Your task to perform on an android device: toggle show notifications on the lock screen Image 0: 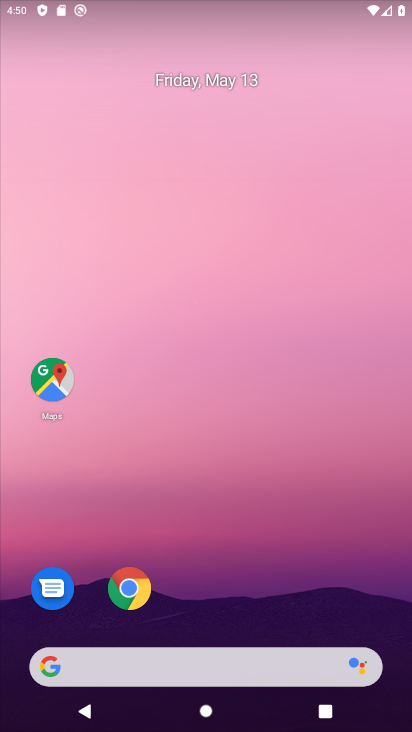
Step 0: drag from (222, 636) to (307, 243)
Your task to perform on an android device: toggle show notifications on the lock screen Image 1: 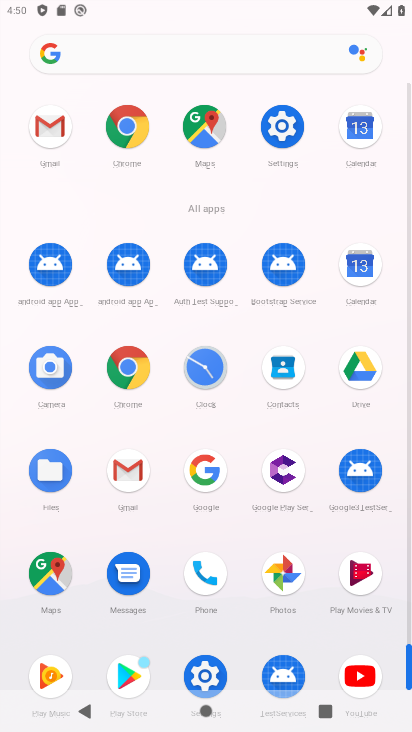
Step 1: click (205, 682)
Your task to perform on an android device: toggle show notifications on the lock screen Image 2: 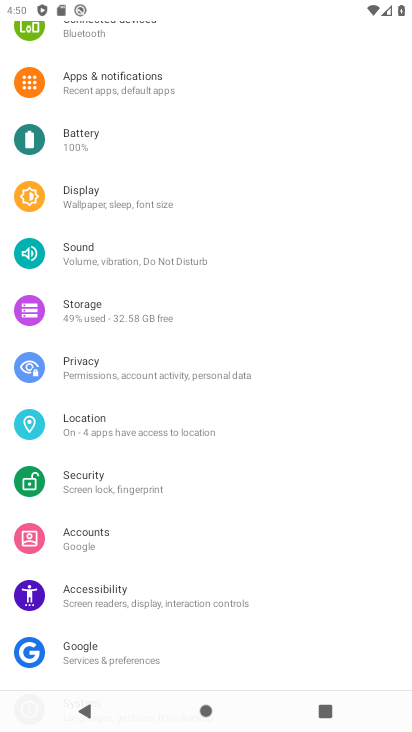
Step 2: click (163, 98)
Your task to perform on an android device: toggle show notifications on the lock screen Image 3: 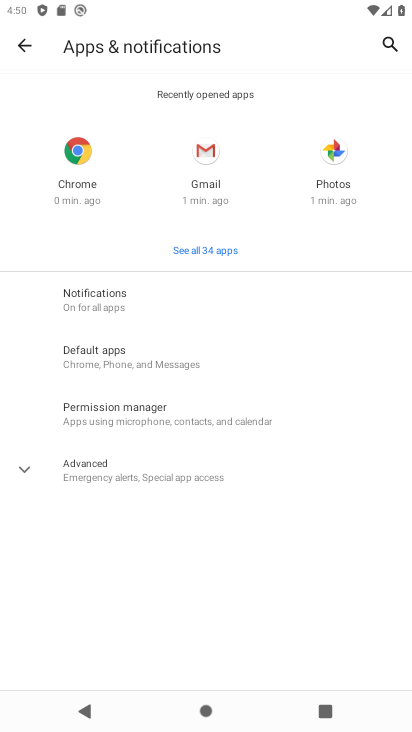
Step 3: click (188, 297)
Your task to perform on an android device: toggle show notifications on the lock screen Image 4: 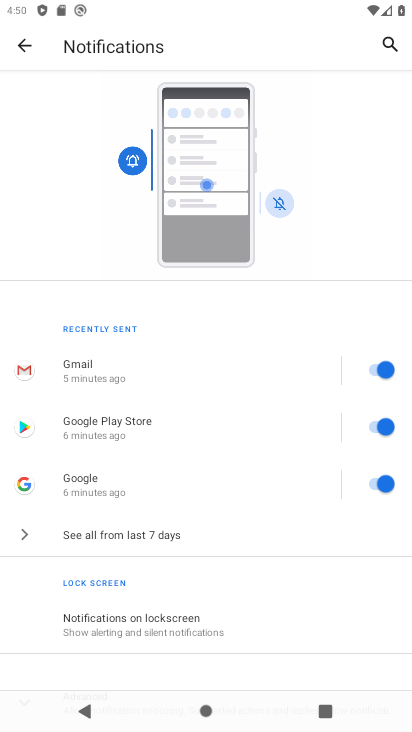
Step 4: click (169, 626)
Your task to perform on an android device: toggle show notifications on the lock screen Image 5: 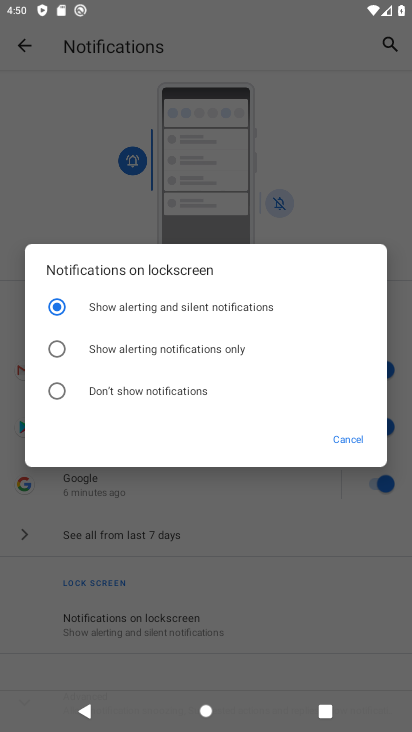
Step 5: click (222, 403)
Your task to perform on an android device: toggle show notifications on the lock screen Image 6: 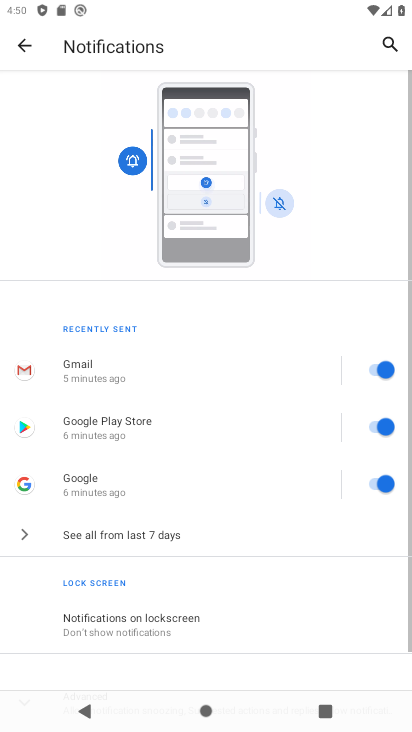
Step 6: task complete